Your task to perform on an android device: Open the Play Movies app and select the watchlist tab. Image 0: 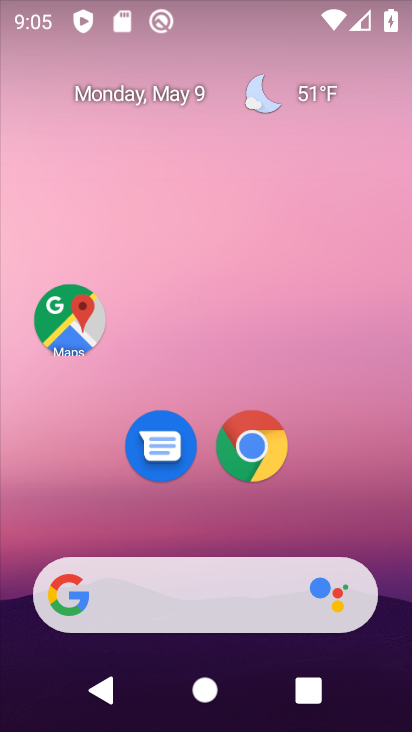
Step 0: drag from (355, 530) to (191, 2)
Your task to perform on an android device: Open the Play Movies app and select the watchlist tab. Image 1: 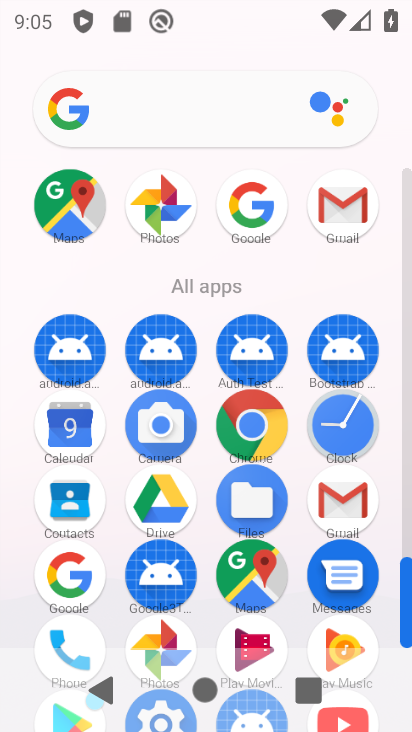
Step 1: drag from (350, 620) to (317, 16)
Your task to perform on an android device: Open the Play Movies app and select the watchlist tab. Image 2: 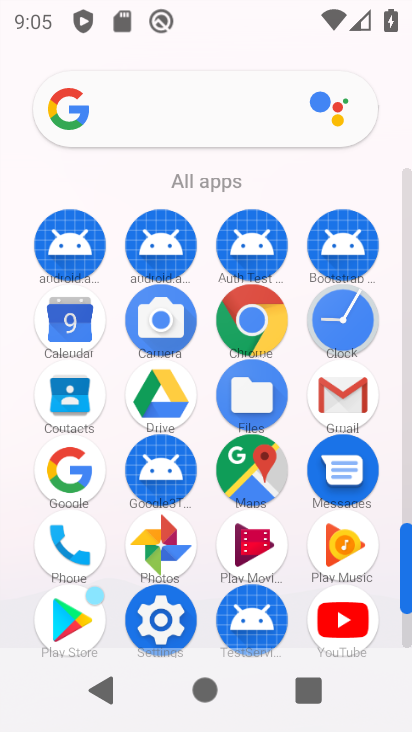
Step 2: click (222, 561)
Your task to perform on an android device: Open the Play Movies app and select the watchlist tab. Image 3: 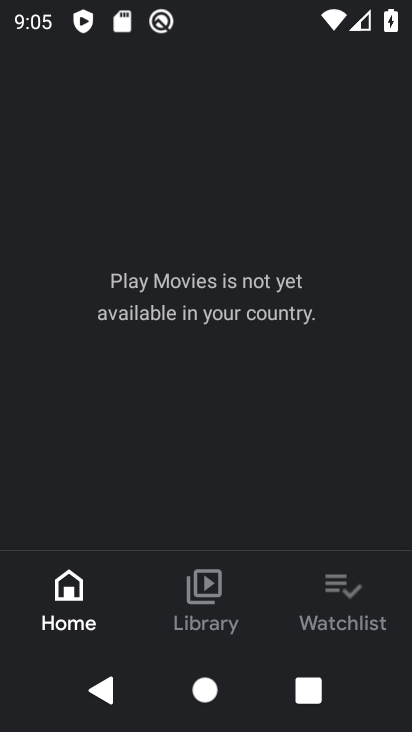
Step 3: click (354, 582)
Your task to perform on an android device: Open the Play Movies app and select the watchlist tab. Image 4: 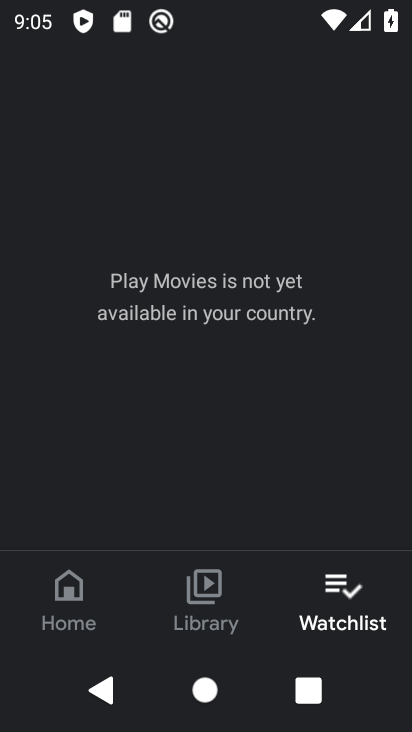
Step 4: task complete